Your task to perform on an android device: Open Amazon Image 0: 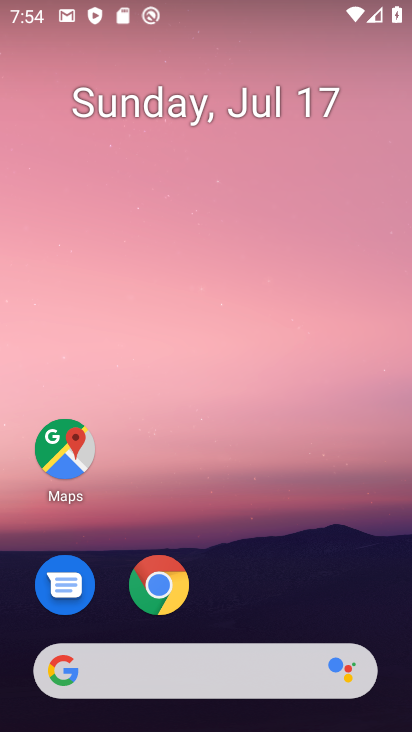
Step 0: click (160, 578)
Your task to perform on an android device: Open Amazon Image 1: 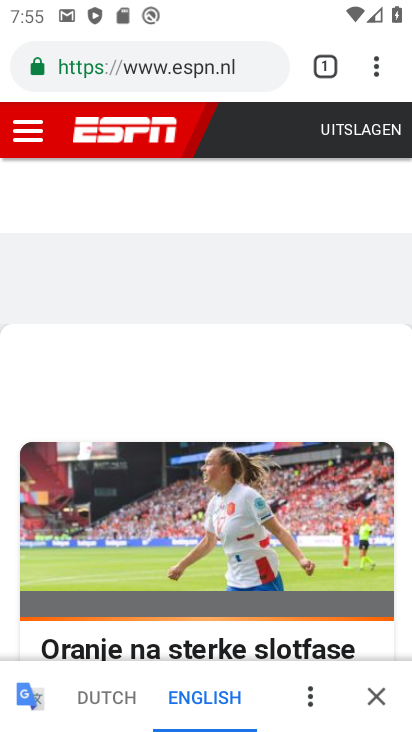
Step 1: drag from (378, 61) to (227, 133)
Your task to perform on an android device: Open Amazon Image 2: 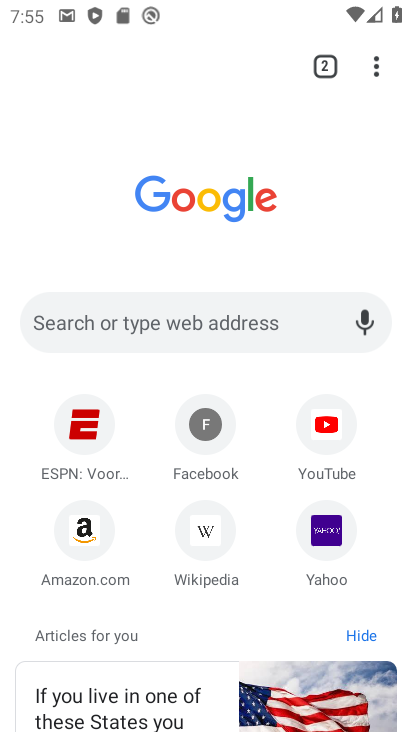
Step 2: click (95, 537)
Your task to perform on an android device: Open Amazon Image 3: 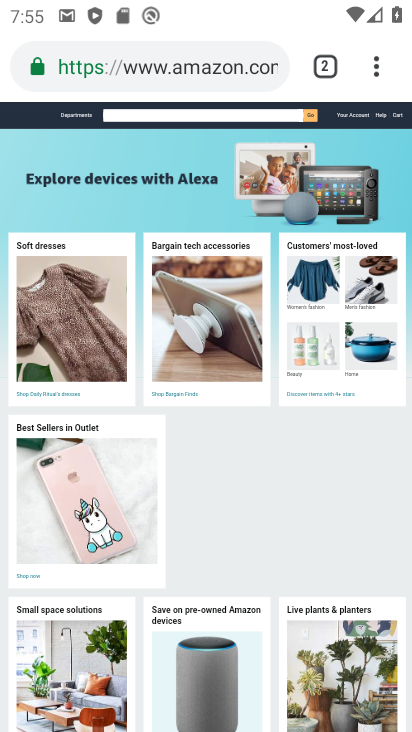
Step 3: task complete